Your task to perform on an android device: delete browsing data in the chrome app Image 0: 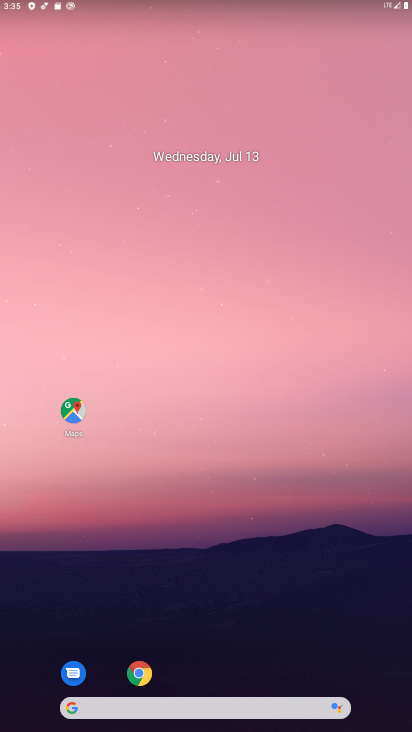
Step 0: click (140, 673)
Your task to perform on an android device: delete browsing data in the chrome app Image 1: 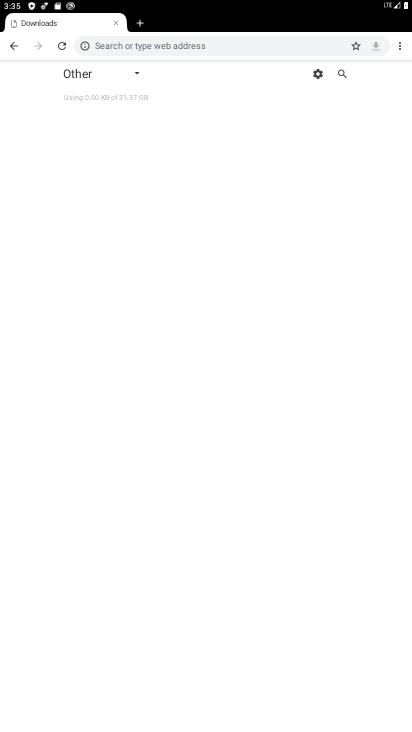
Step 1: click (400, 51)
Your task to perform on an android device: delete browsing data in the chrome app Image 2: 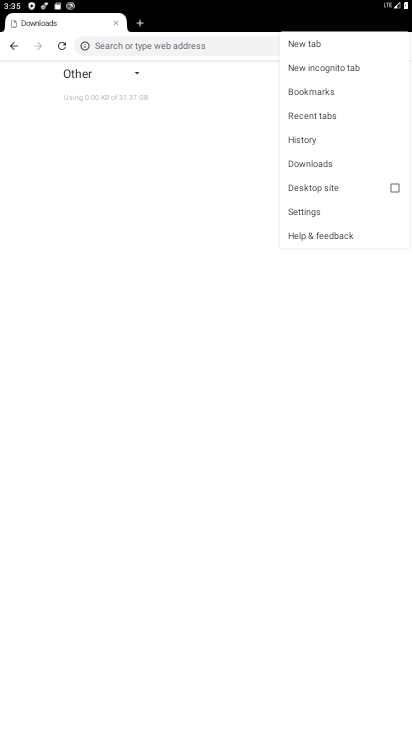
Step 2: click (312, 209)
Your task to perform on an android device: delete browsing data in the chrome app Image 3: 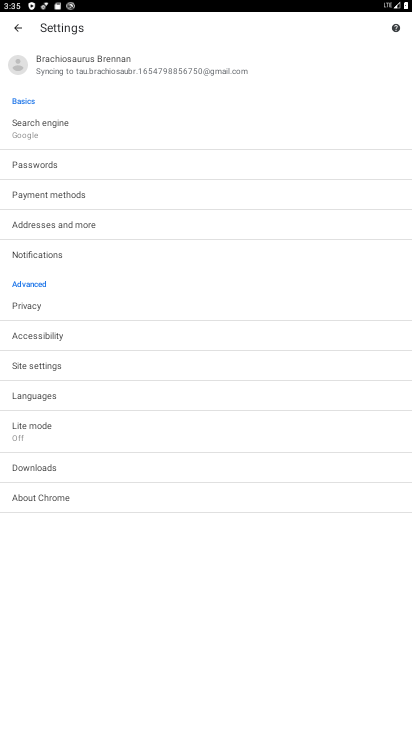
Step 3: click (33, 302)
Your task to perform on an android device: delete browsing data in the chrome app Image 4: 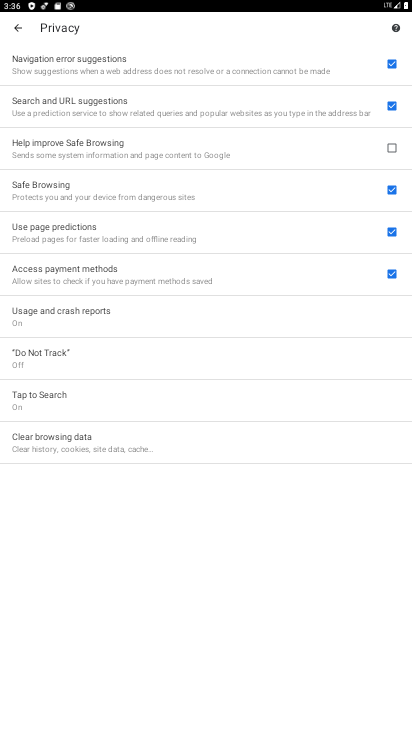
Step 4: click (64, 439)
Your task to perform on an android device: delete browsing data in the chrome app Image 5: 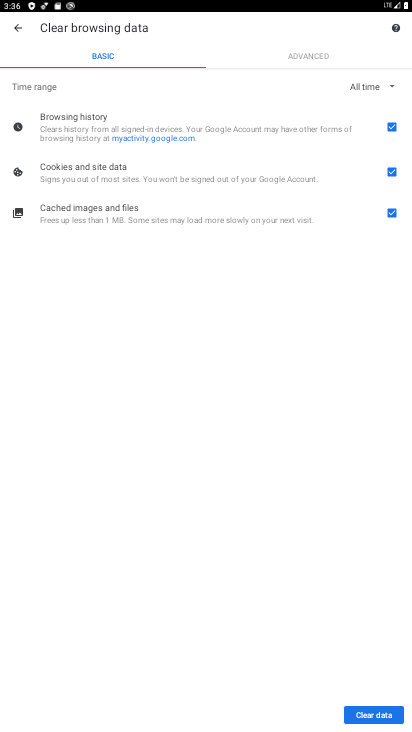
Step 5: click (381, 717)
Your task to perform on an android device: delete browsing data in the chrome app Image 6: 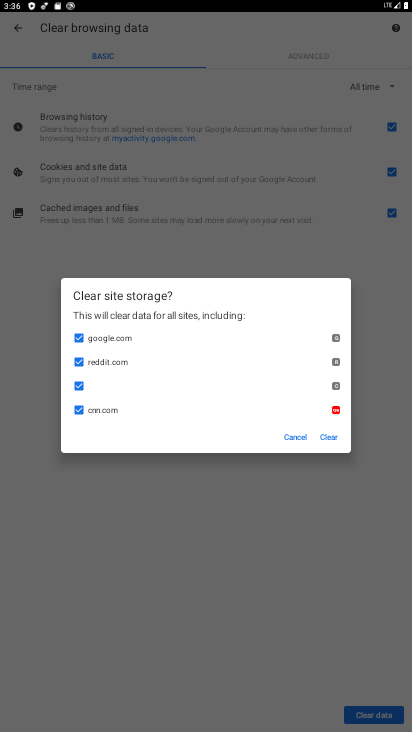
Step 6: click (334, 437)
Your task to perform on an android device: delete browsing data in the chrome app Image 7: 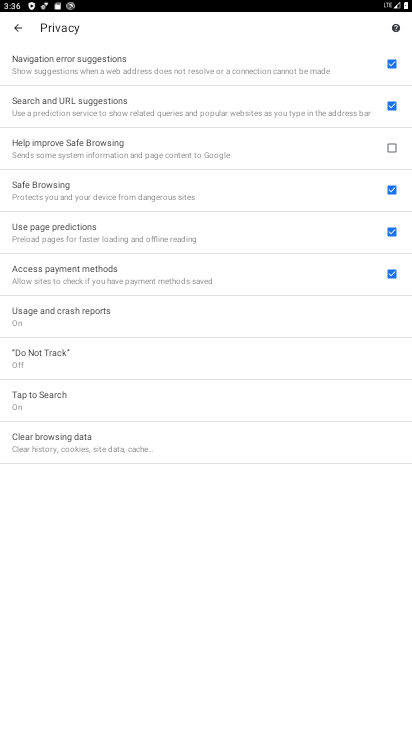
Step 7: task complete